Your task to perform on an android device: What's the weather like in San Francisco? Image 0: 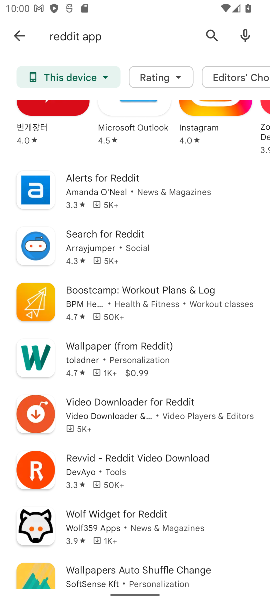
Step 0: press home button
Your task to perform on an android device: What's the weather like in San Francisco? Image 1: 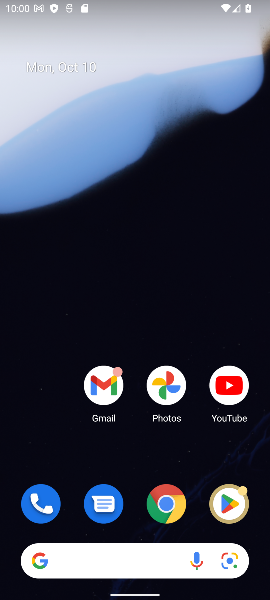
Step 1: click (165, 501)
Your task to perform on an android device: What's the weather like in San Francisco? Image 2: 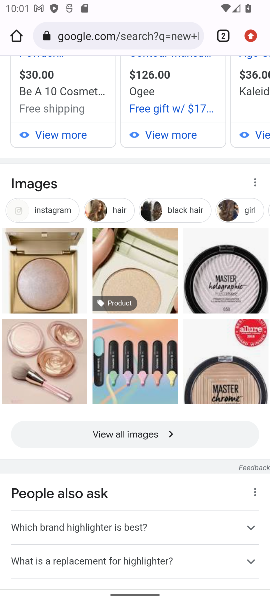
Step 2: click (109, 23)
Your task to perform on an android device: What's the weather like in San Francisco? Image 3: 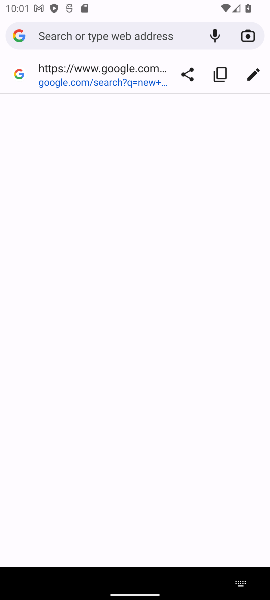
Step 3: type "weather like in San Francisco?"
Your task to perform on an android device: What's the weather like in San Francisco? Image 4: 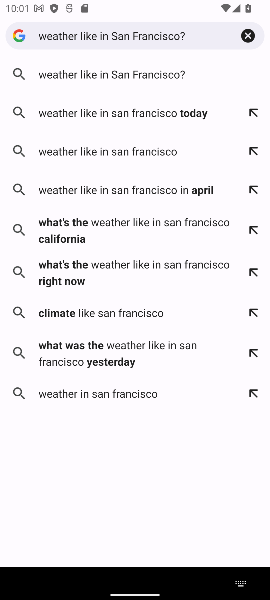
Step 4: click (82, 68)
Your task to perform on an android device: What's the weather like in San Francisco? Image 5: 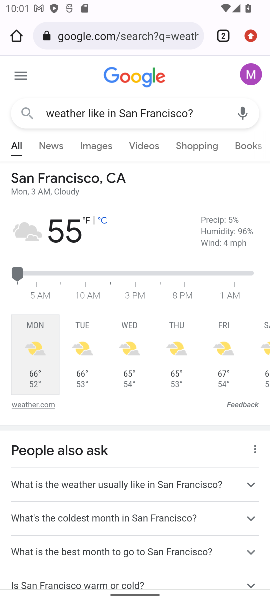
Step 5: task complete